Your task to perform on an android device: Go to Wikipedia Image 0: 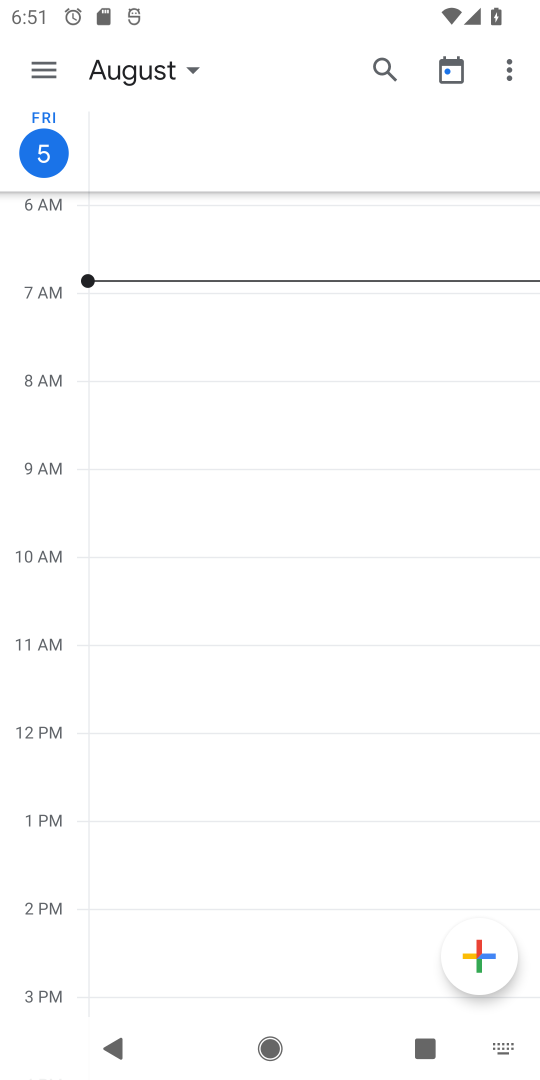
Step 0: press home button
Your task to perform on an android device: Go to Wikipedia Image 1: 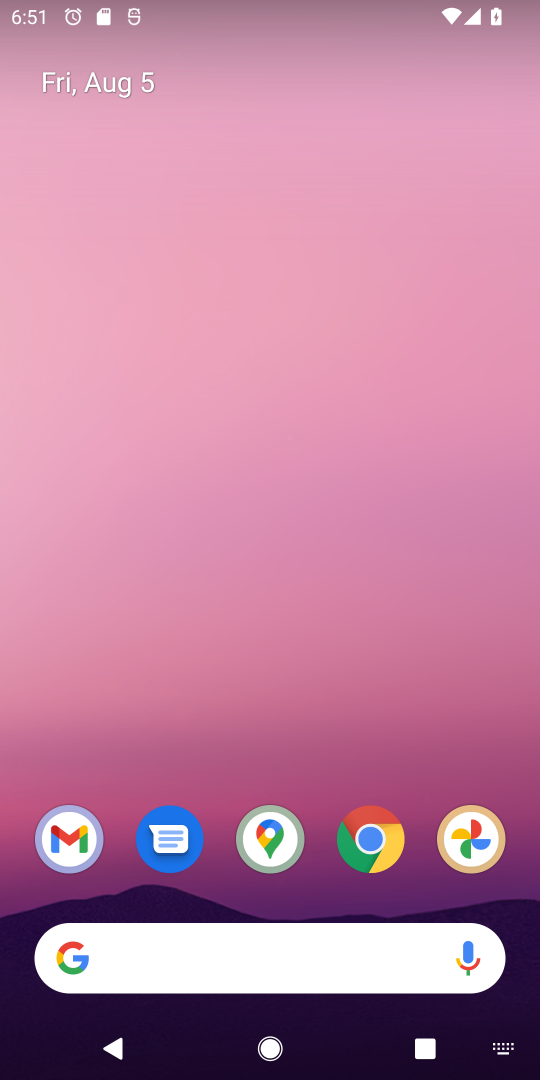
Step 1: click (366, 816)
Your task to perform on an android device: Go to Wikipedia Image 2: 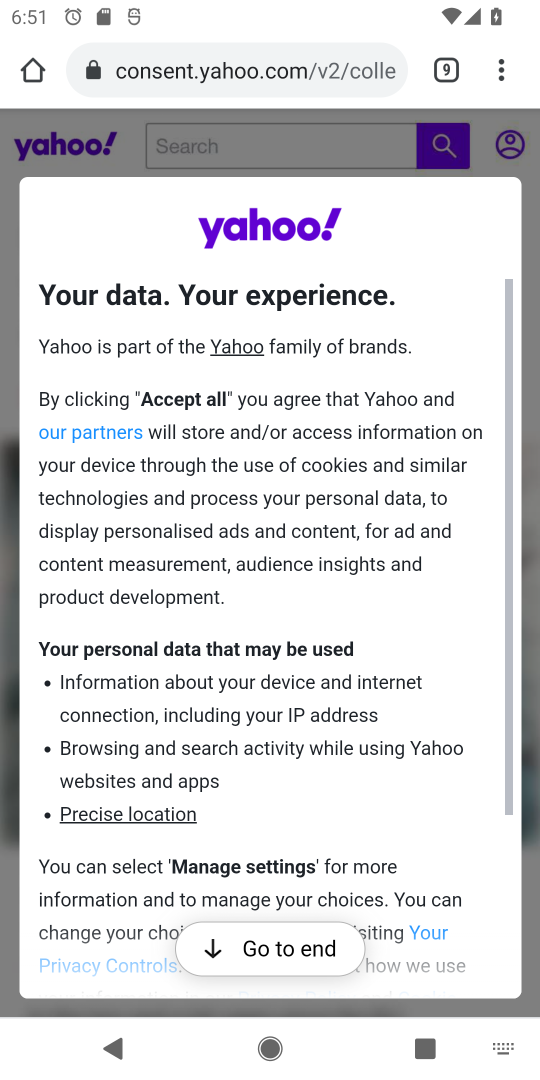
Step 2: click (508, 84)
Your task to perform on an android device: Go to Wikipedia Image 3: 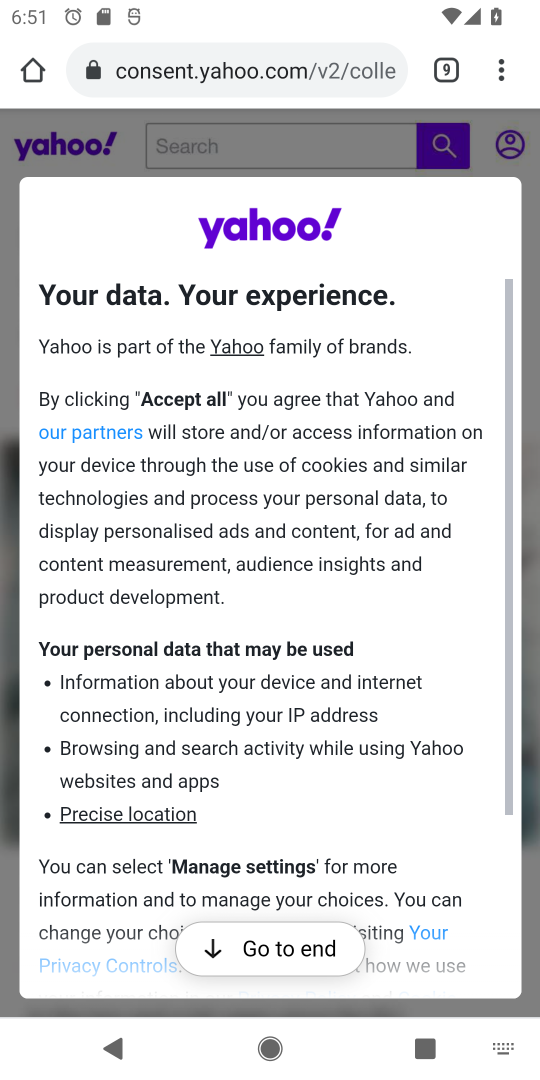
Step 3: click (455, 81)
Your task to perform on an android device: Go to Wikipedia Image 4: 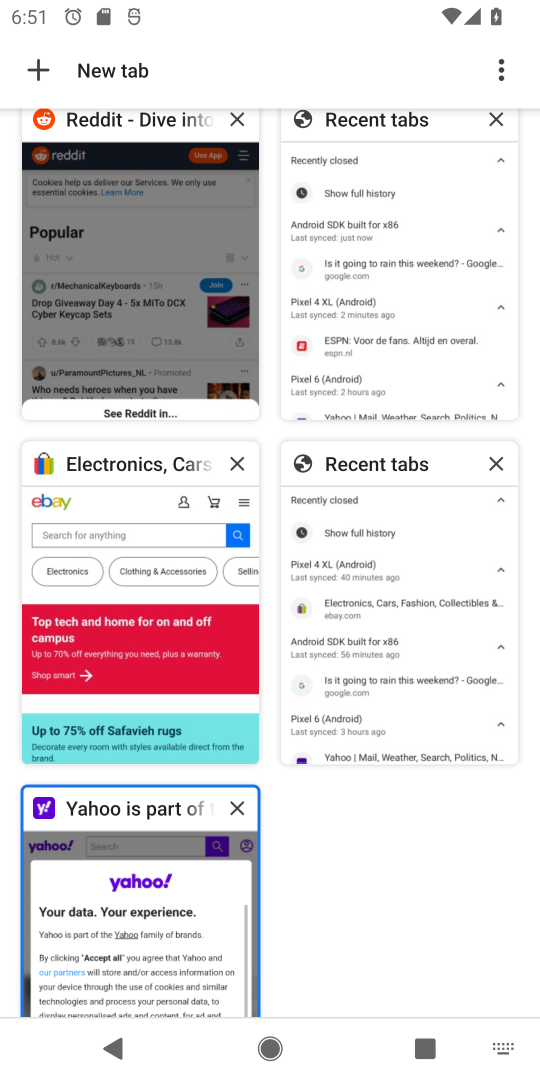
Step 4: click (25, 67)
Your task to perform on an android device: Go to Wikipedia Image 5: 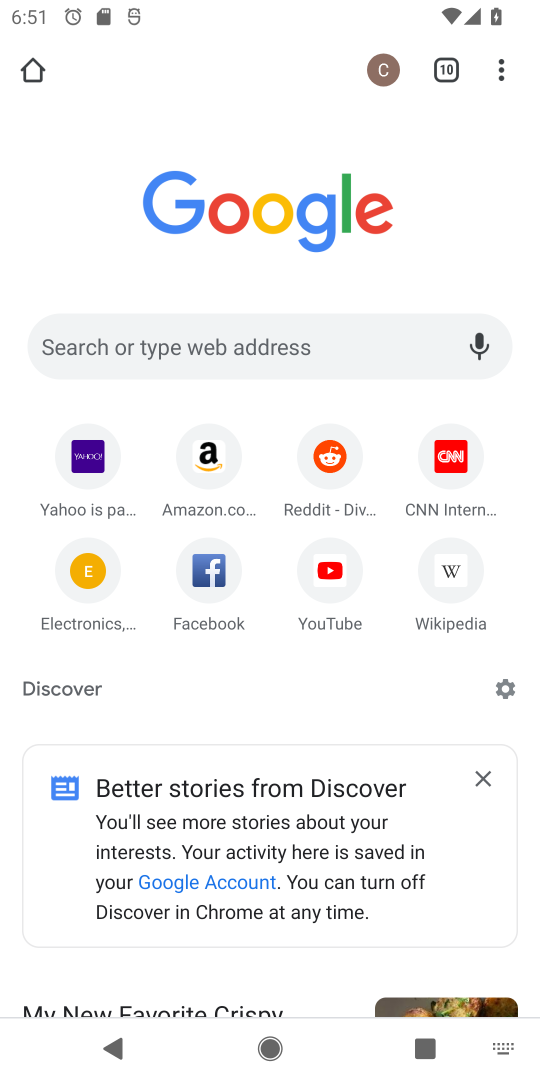
Step 5: click (445, 594)
Your task to perform on an android device: Go to Wikipedia Image 6: 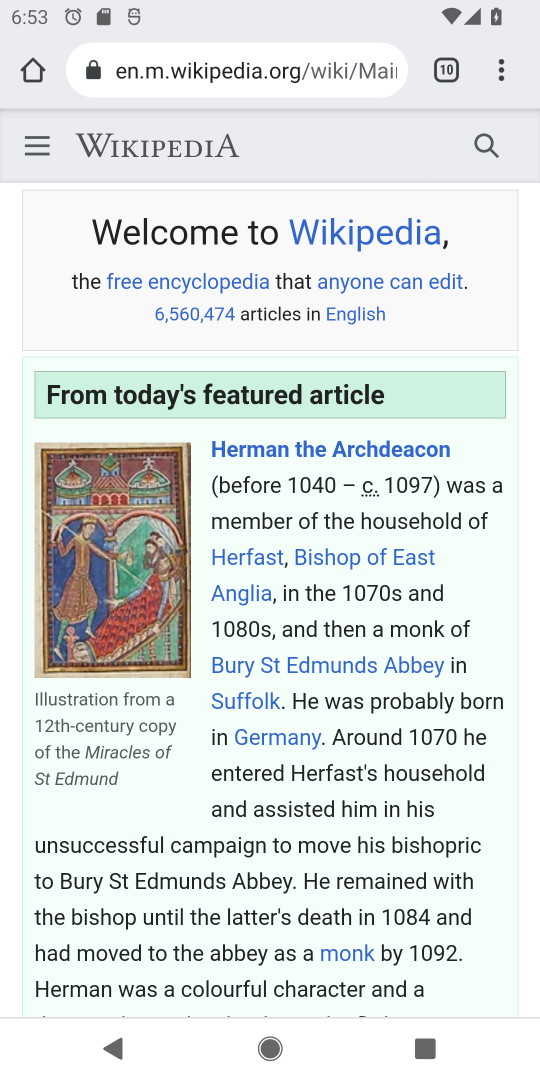
Step 6: task complete